Your task to perform on an android device: uninstall "Expedia: Hotels, Flights & Car" Image 0: 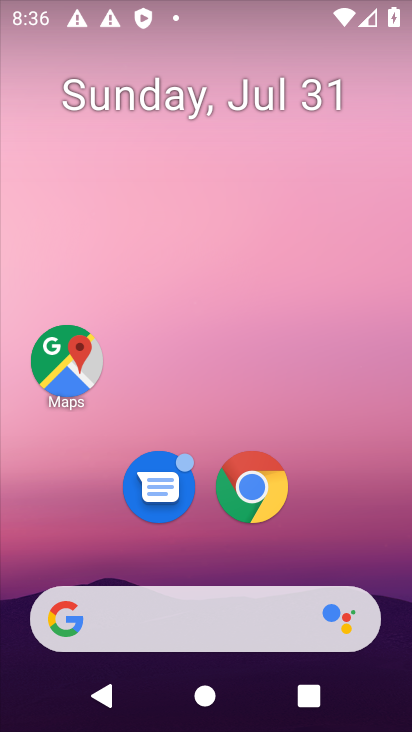
Step 0: click (241, 79)
Your task to perform on an android device: uninstall "Expedia: Hotels, Flights & Car" Image 1: 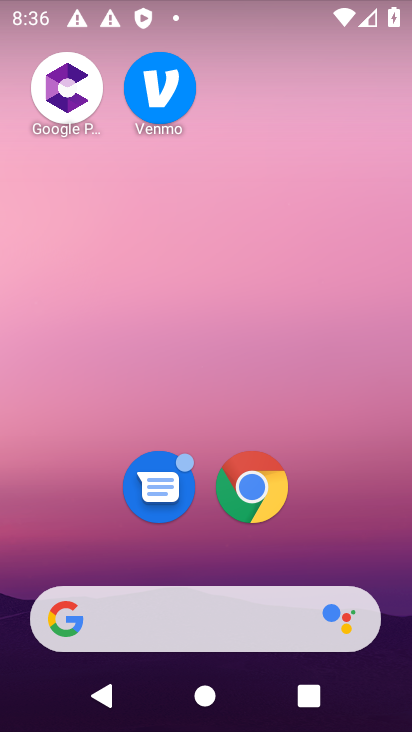
Step 1: drag from (205, 509) to (270, 113)
Your task to perform on an android device: uninstall "Expedia: Hotels, Flights & Car" Image 2: 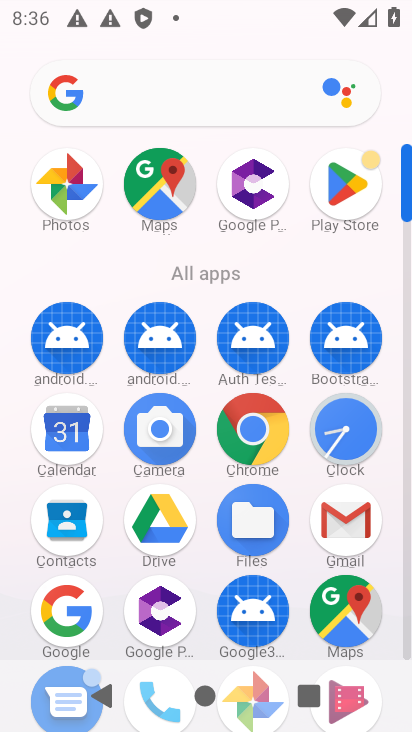
Step 2: click (343, 173)
Your task to perform on an android device: uninstall "Expedia: Hotels, Flights & Car" Image 3: 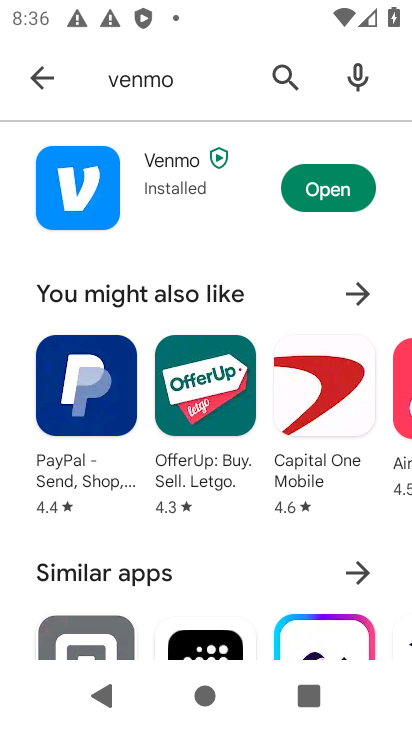
Step 3: click (276, 84)
Your task to perform on an android device: uninstall "Expedia: Hotels, Flights & Car" Image 4: 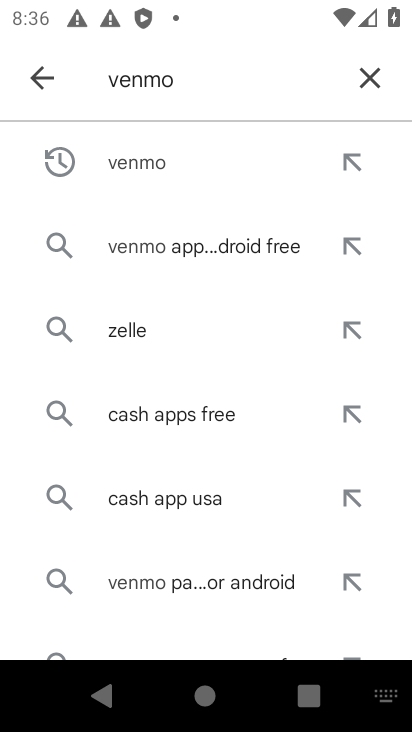
Step 4: click (374, 78)
Your task to perform on an android device: uninstall "Expedia: Hotels, Flights & Car" Image 5: 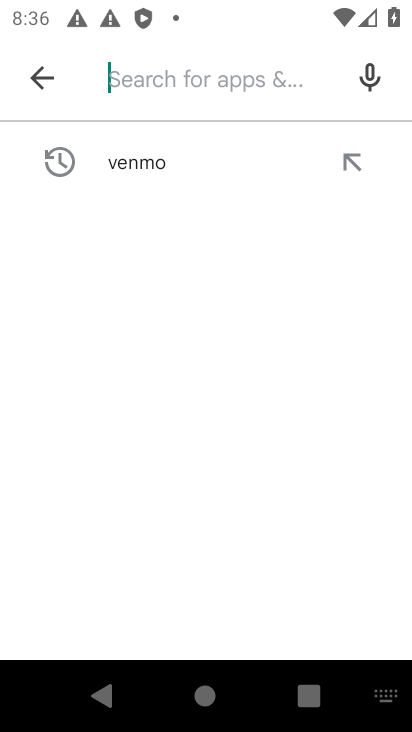
Step 5: type "expedia"
Your task to perform on an android device: uninstall "Expedia: Hotels, Flights & Car" Image 6: 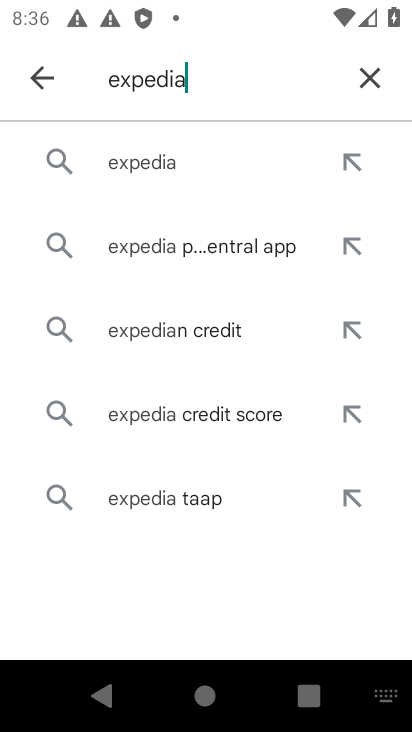
Step 6: click (168, 164)
Your task to perform on an android device: uninstall "Expedia: Hotels, Flights & Car" Image 7: 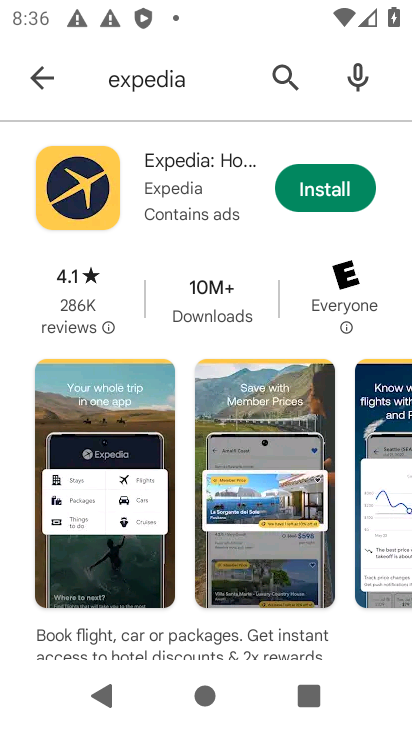
Step 7: task complete